Your task to perform on an android device: Search for Mexican restaurants on Maps Image 0: 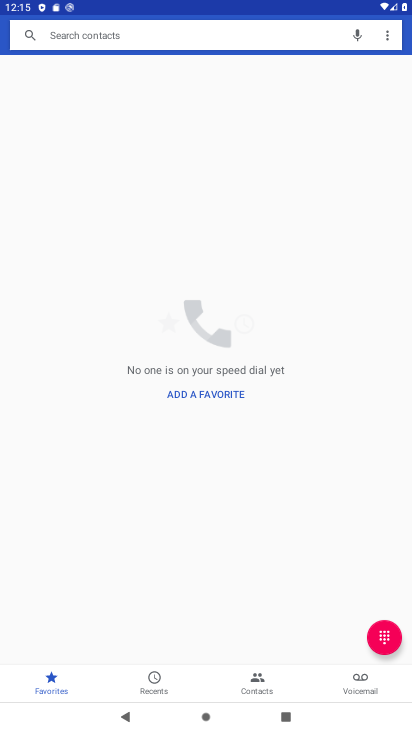
Step 0: press home button
Your task to perform on an android device: Search for Mexican restaurants on Maps Image 1: 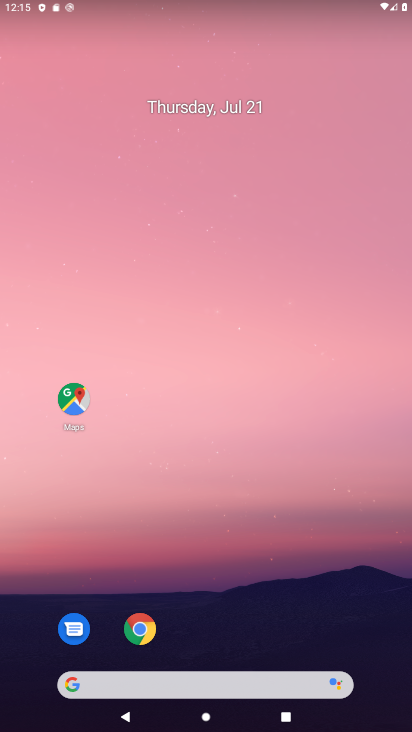
Step 1: drag from (277, 602) to (314, 64)
Your task to perform on an android device: Search for Mexican restaurants on Maps Image 2: 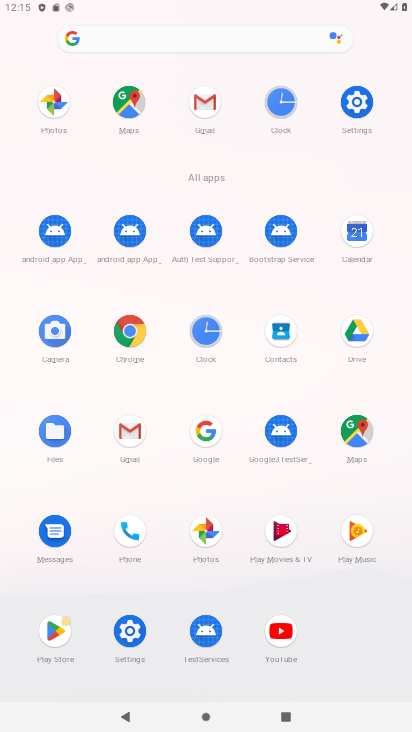
Step 2: click (355, 436)
Your task to perform on an android device: Search for Mexican restaurants on Maps Image 3: 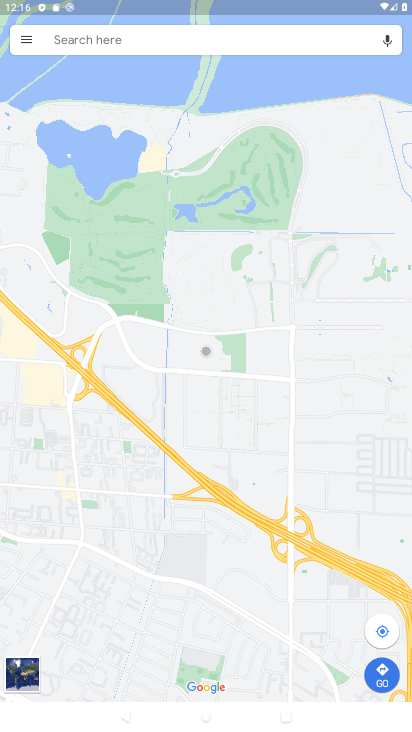
Step 3: click (167, 41)
Your task to perform on an android device: Search for Mexican restaurants on Maps Image 4: 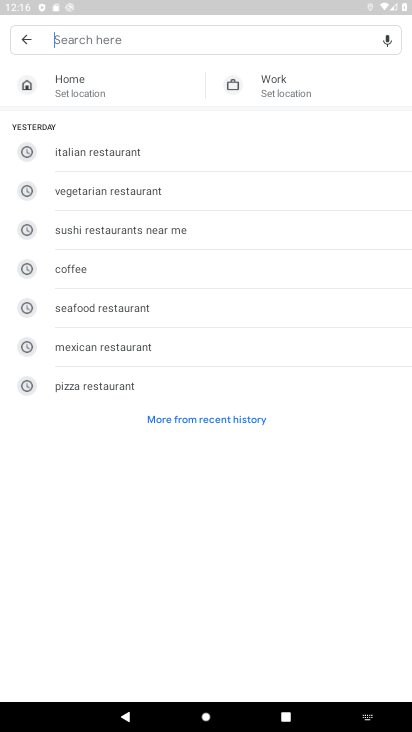
Step 4: type "mexcian restaurants"
Your task to perform on an android device: Search for Mexican restaurants on Maps Image 5: 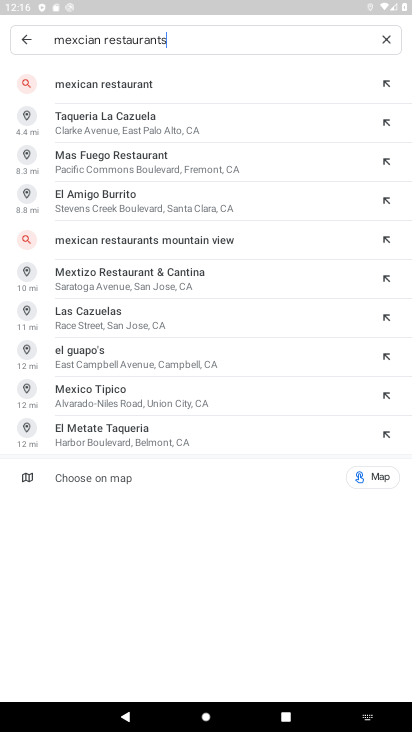
Step 5: click (180, 83)
Your task to perform on an android device: Search for Mexican restaurants on Maps Image 6: 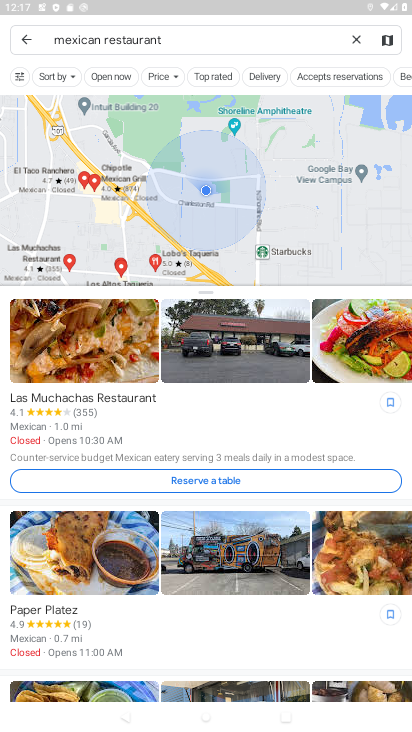
Step 6: task complete